Your task to perform on an android device: choose inbox layout in the gmail app Image 0: 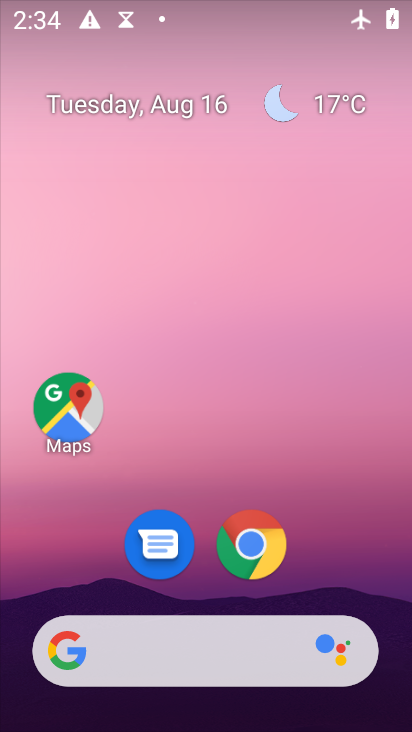
Step 0: press home button
Your task to perform on an android device: choose inbox layout in the gmail app Image 1: 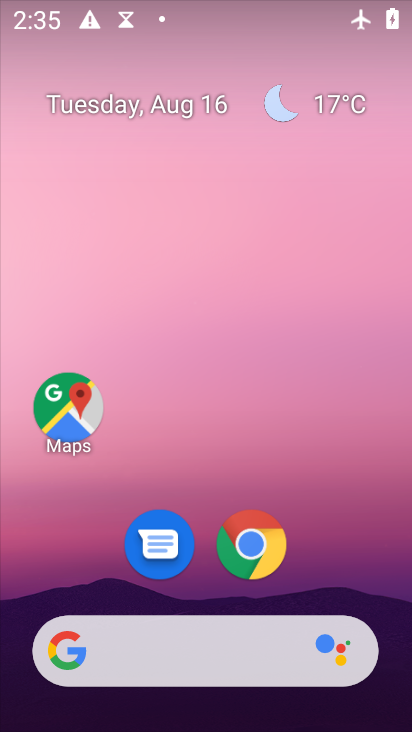
Step 1: drag from (179, 650) to (209, 46)
Your task to perform on an android device: choose inbox layout in the gmail app Image 2: 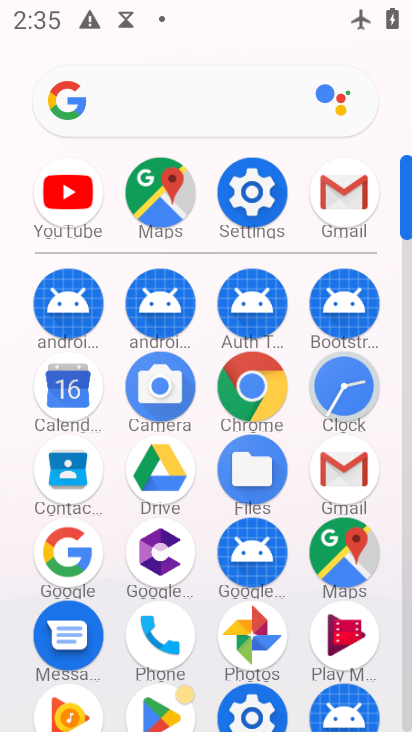
Step 2: click (343, 191)
Your task to perform on an android device: choose inbox layout in the gmail app Image 3: 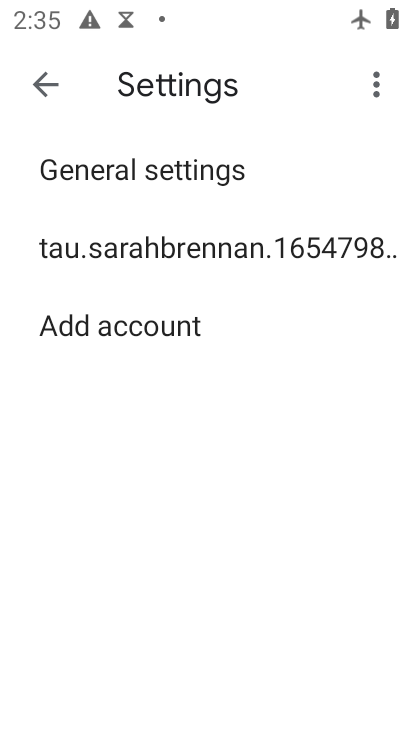
Step 3: press back button
Your task to perform on an android device: choose inbox layout in the gmail app Image 4: 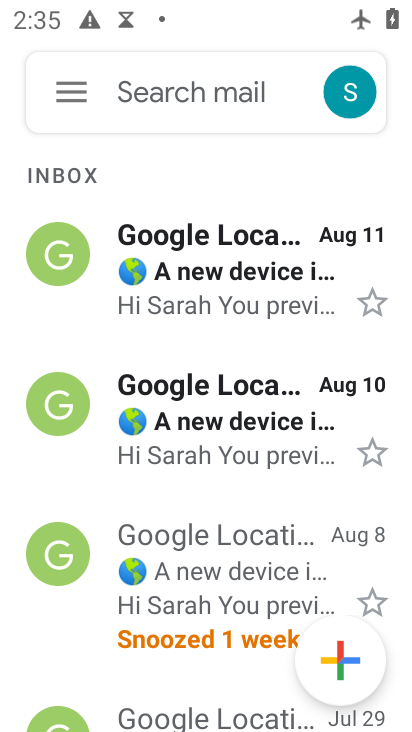
Step 4: click (53, 85)
Your task to perform on an android device: choose inbox layout in the gmail app Image 5: 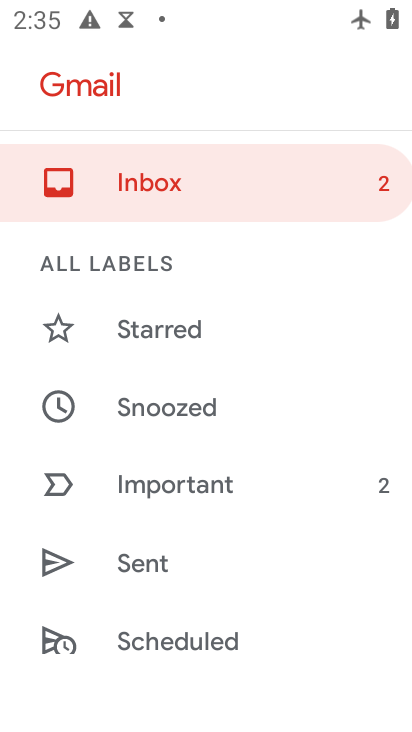
Step 5: drag from (189, 515) to (206, 434)
Your task to perform on an android device: choose inbox layout in the gmail app Image 6: 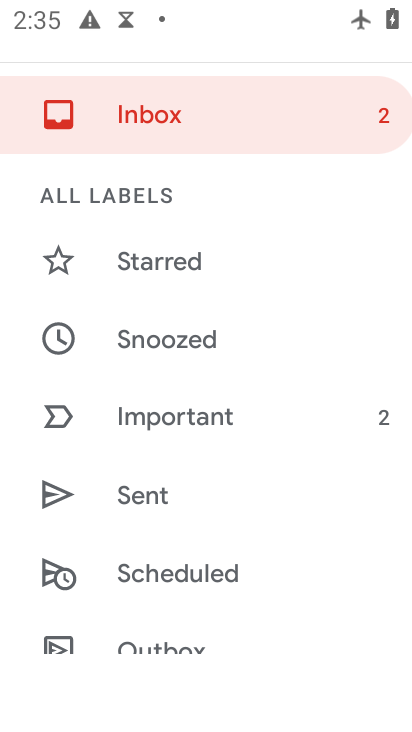
Step 6: drag from (192, 537) to (206, 475)
Your task to perform on an android device: choose inbox layout in the gmail app Image 7: 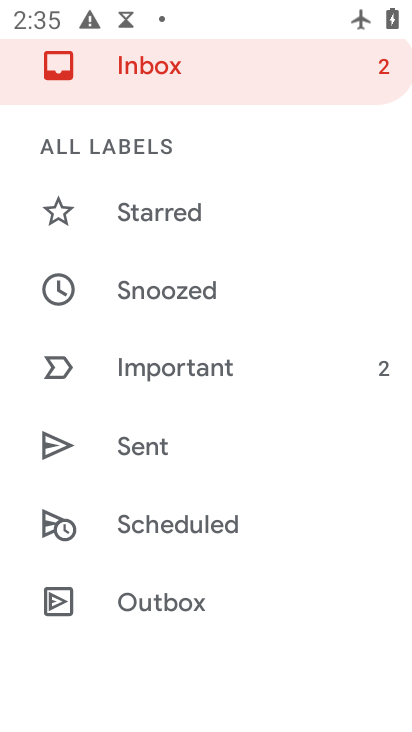
Step 7: drag from (137, 580) to (220, 456)
Your task to perform on an android device: choose inbox layout in the gmail app Image 8: 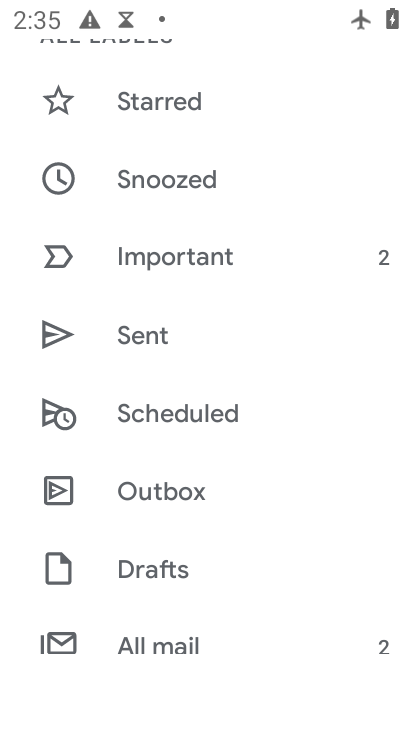
Step 8: drag from (184, 539) to (206, 449)
Your task to perform on an android device: choose inbox layout in the gmail app Image 9: 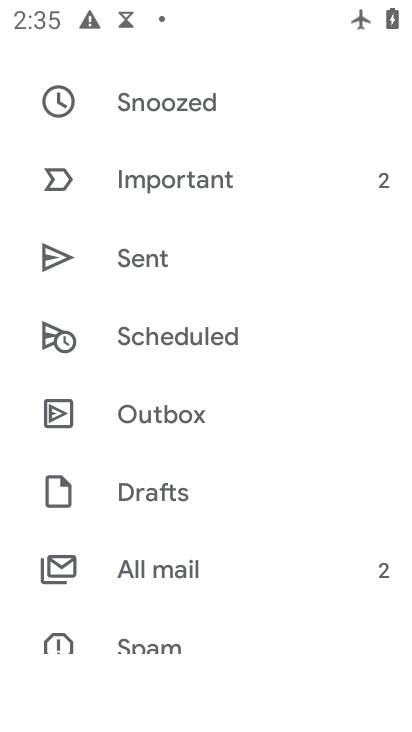
Step 9: drag from (156, 553) to (172, 470)
Your task to perform on an android device: choose inbox layout in the gmail app Image 10: 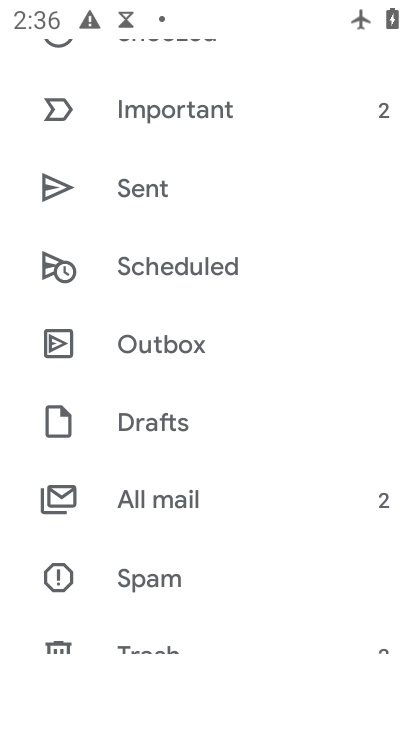
Step 10: drag from (152, 552) to (172, 457)
Your task to perform on an android device: choose inbox layout in the gmail app Image 11: 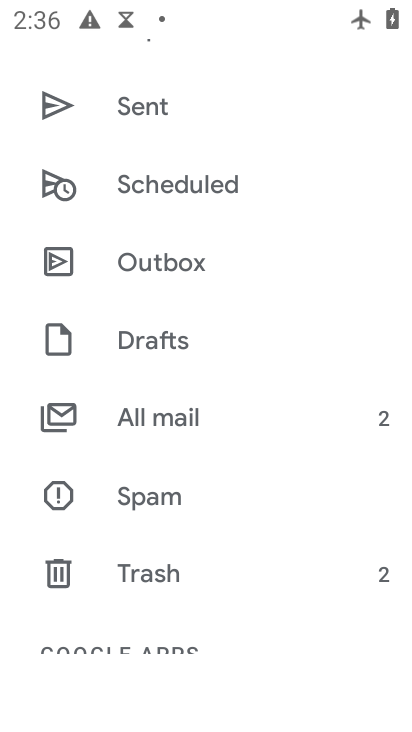
Step 11: drag from (150, 533) to (162, 430)
Your task to perform on an android device: choose inbox layout in the gmail app Image 12: 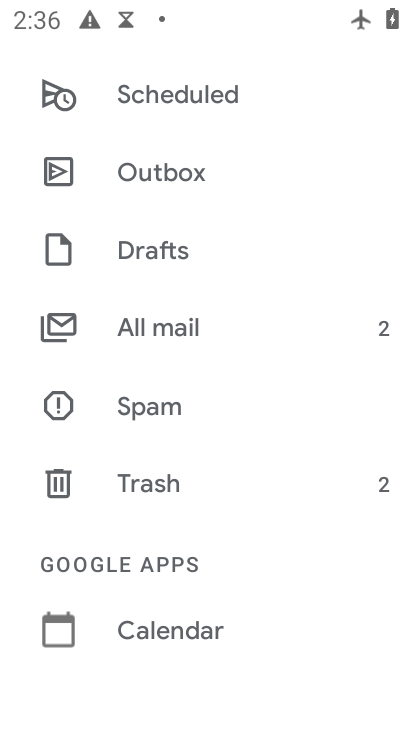
Step 12: drag from (150, 506) to (150, 409)
Your task to perform on an android device: choose inbox layout in the gmail app Image 13: 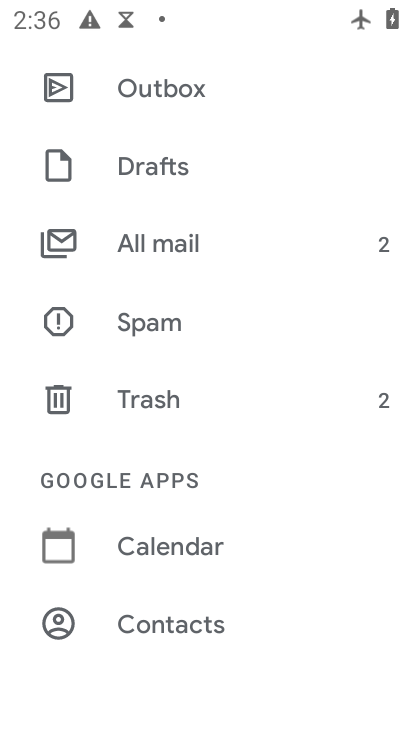
Step 13: drag from (141, 510) to (189, 373)
Your task to perform on an android device: choose inbox layout in the gmail app Image 14: 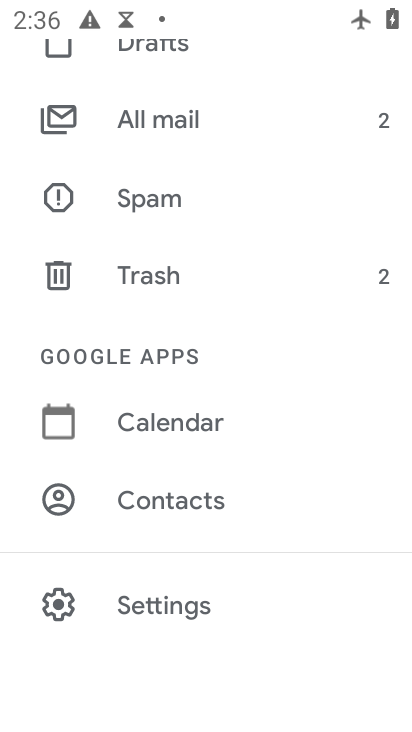
Step 14: click (171, 614)
Your task to perform on an android device: choose inbox layout in the gmail app Image 15: 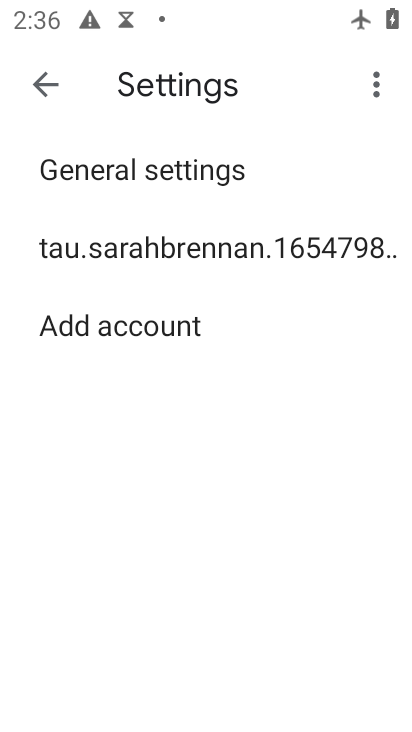
Step 15: click (100, 258)
Your task to perform on an android device: choose inbox layout in the gmail app Image 16: 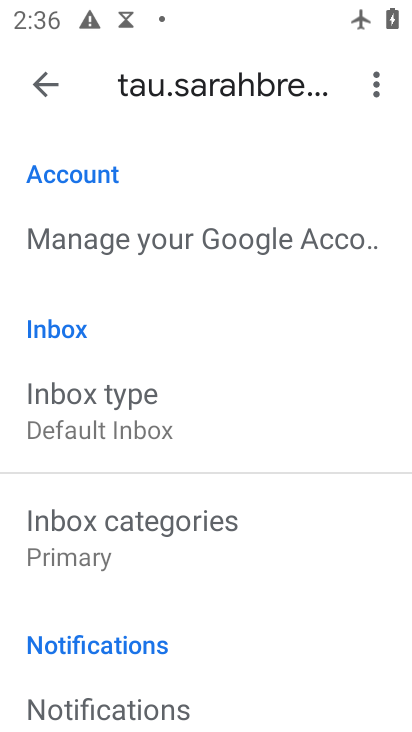
Step 16: click (129, 418)
Your task to perform on an android device: choose inbox layout in the gmail app Image 17: 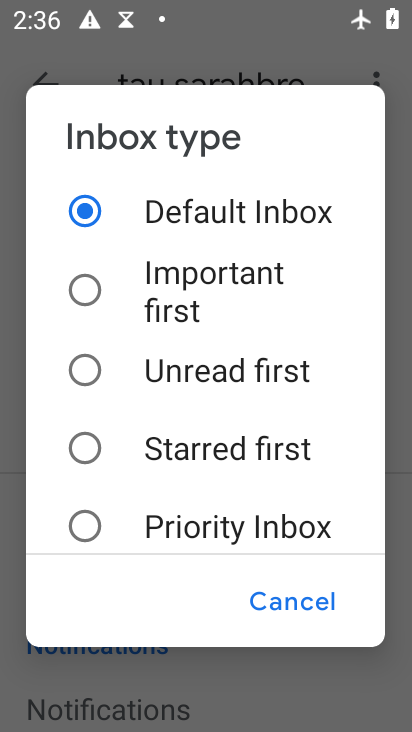
Step 17: click (78, 373)
Your task to perform on an android device: choose inbox layout in the gmail app Image 18: 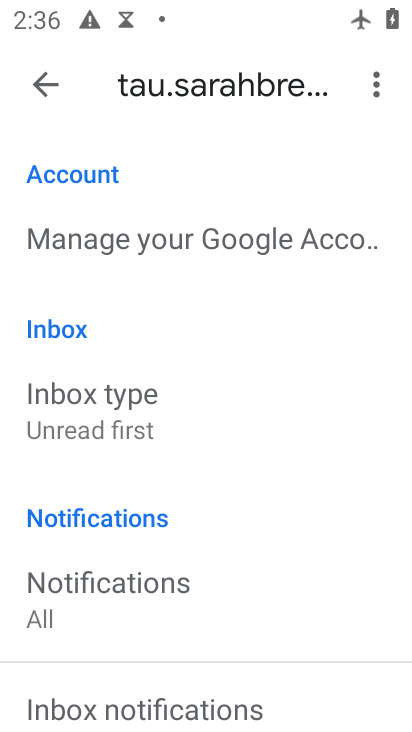
Step 18: task complete